Your task to perform on an android device: Open Google Maps Image 0: 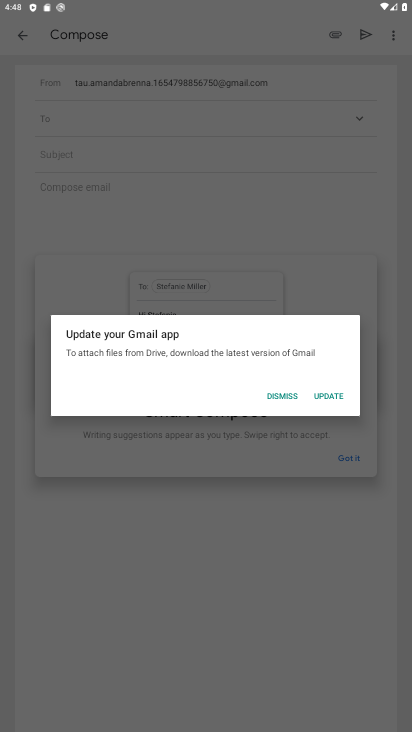
Step 0: press home button
Your task to perform on an android device: Open Google Maps Image 1: 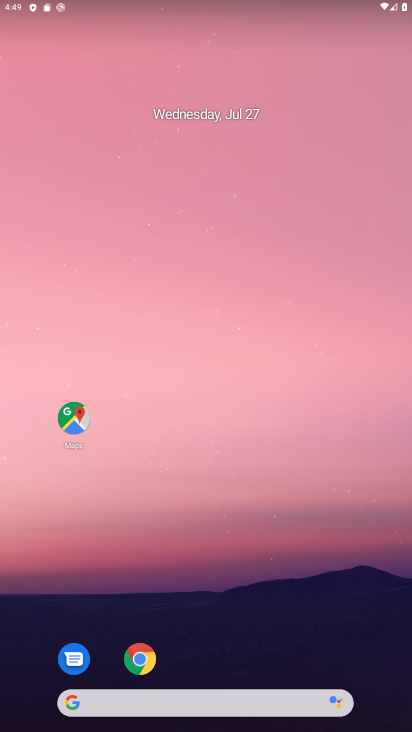
Step 1: drag from (252, 601) to (243, 155)
Your task to perform on an android device: Open Google Maps Image 2: 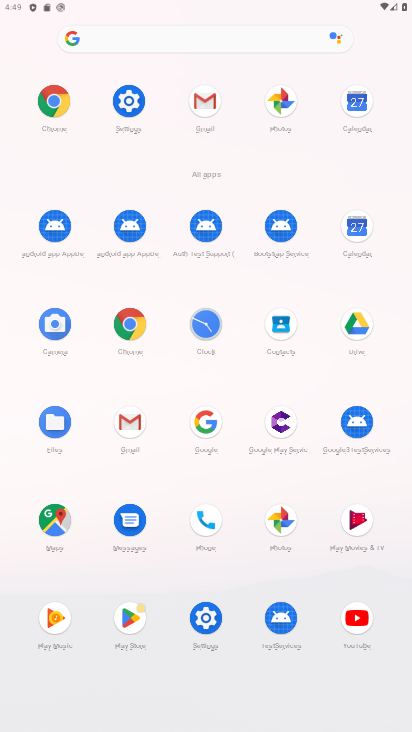
Step 2: click (52, 513)
Your task to perform on an android device: Open Google Maps Image 3: 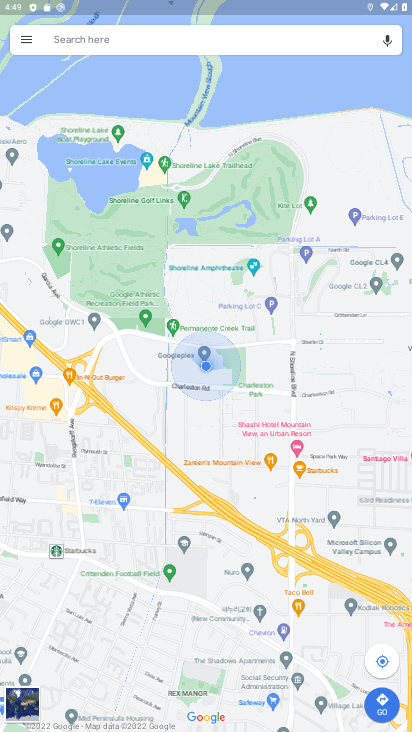
Step 3: task complete